Your task to perform on an android device: turn on location history Image 0: 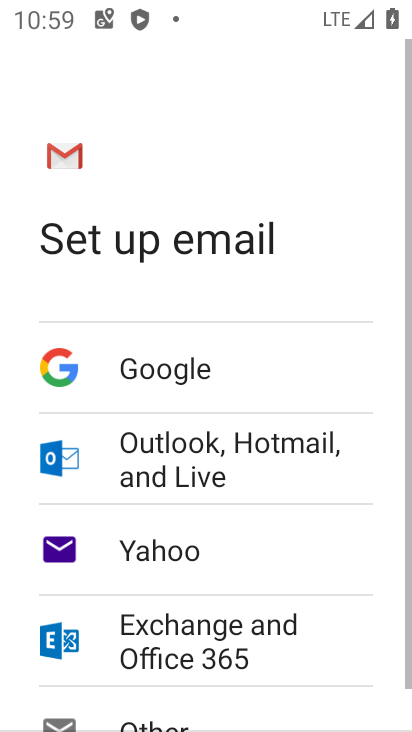
Step 0: press home button
Your task to perform on an android device: turn on location history Image 1: 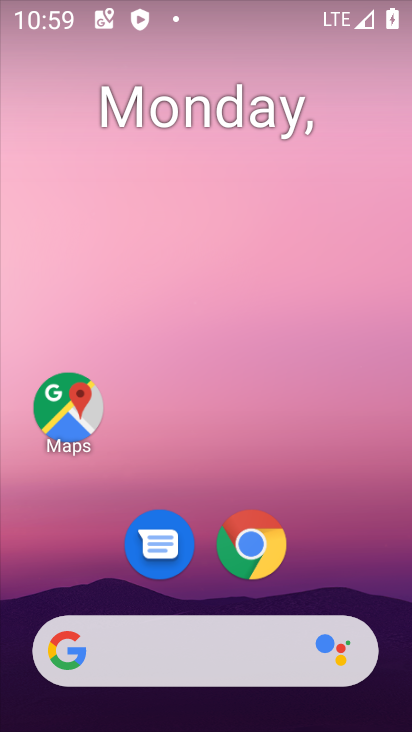
Step 1: drag from (393, 558) to (343, 168)
Your task to perform on an android device: turn on location history Image 2: 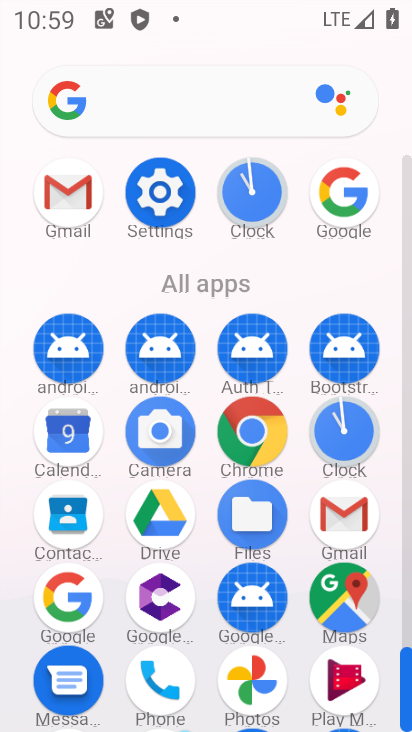
Step 2: click (165, 187)
Your task to perform on an android device: turn on location history Image 3: 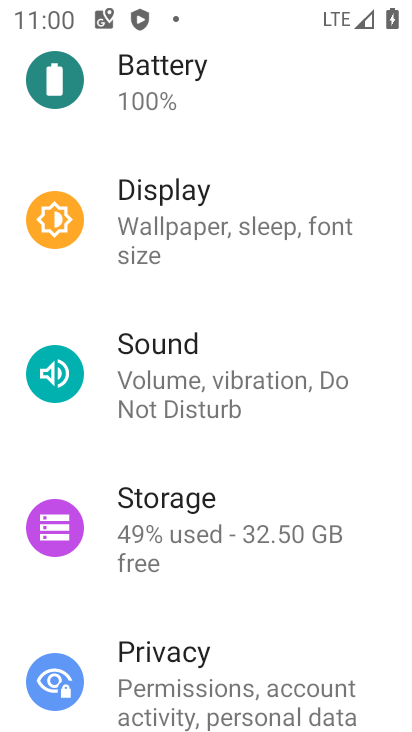
Step 3: drag from (365, 663) to (356, 382)
Your task to perform on an android device: turn on location history Image 4: 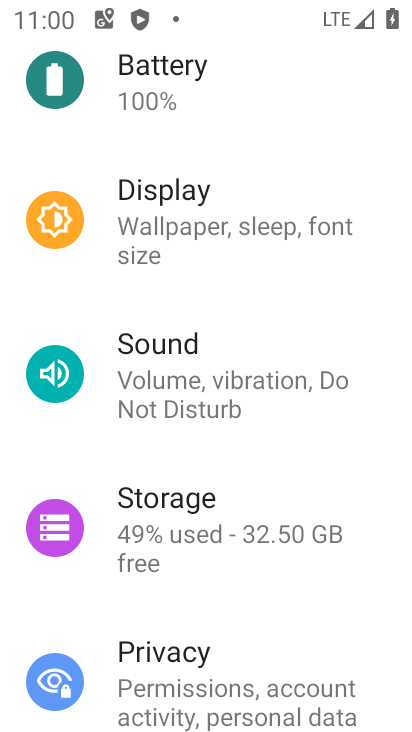
Step 4: click (375, 326)
Your task to perform on an android device: turn on location history Image 5: 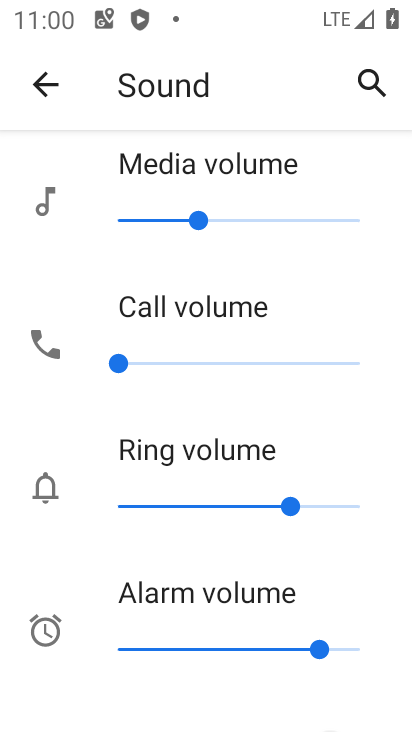
Step 5: press back button
Your task to perform on an android device: turn on location history Image 6: 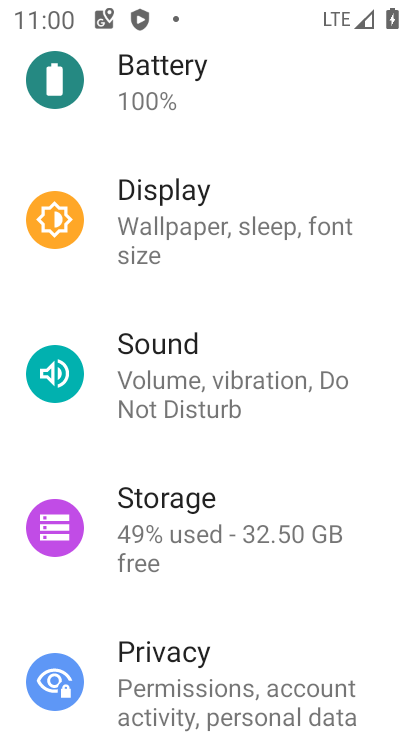
Step 6: drag from (370, 519) to (373, 243)
Your task to perform on an android device: turn on location history Image 7: 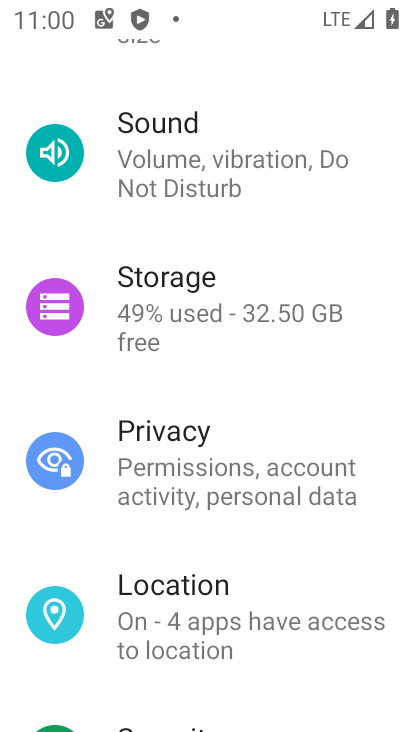
Step 7: click (135, 579)
Your task to perform on an android device: turn on location history Image 8: 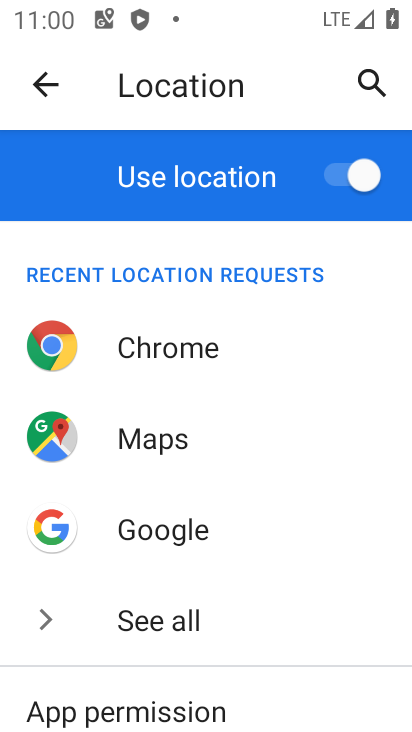
Step 8: task complete